Your task to perform on an android device: check data usage Image 0: 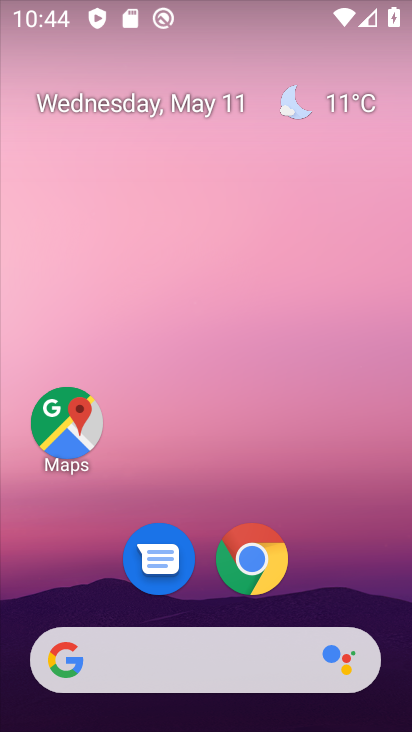
Step 0: drag from (211, 638) to (276, 188)
Your task to perform on an android device: check data usage Image 1: 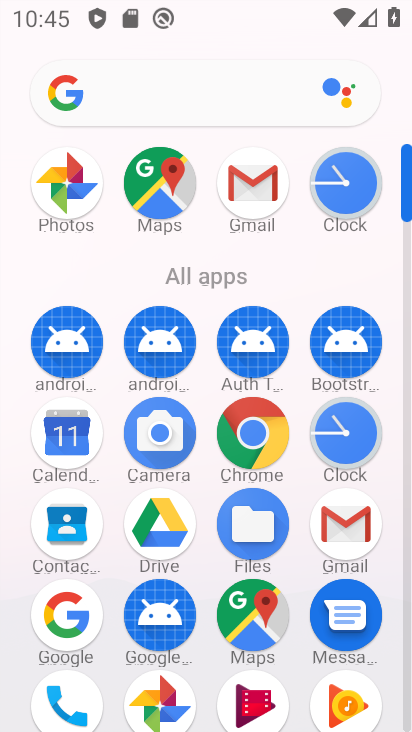
Step 1: drag from (207, 633) to (111, 23)
Your task to perform on an android device: check data usage Image 2: 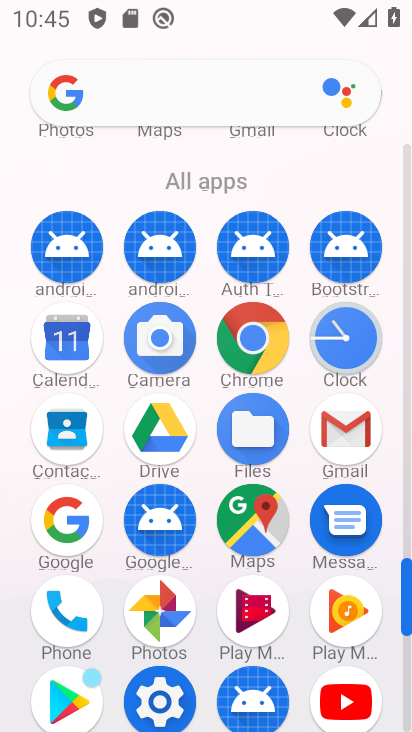
Step 2: click (167, 686)
Your task to perform on an android device: check data usage Image 3: 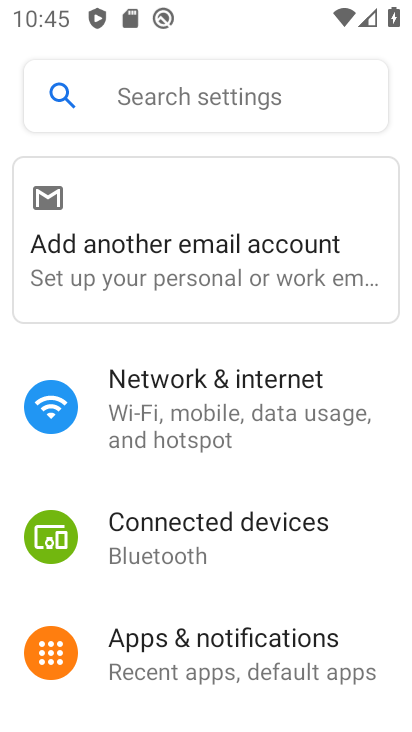
Step 3: drag from (199, 657) to (127, 104)
Your task to perform on an android device: check data usage Image 4: 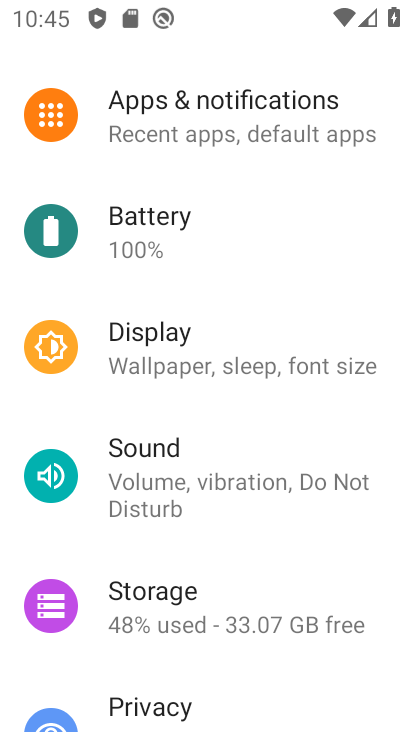
Step 4: drag from (168, 147) to (151, 600)
Your task to perform on an android device: check data usage Image 5: 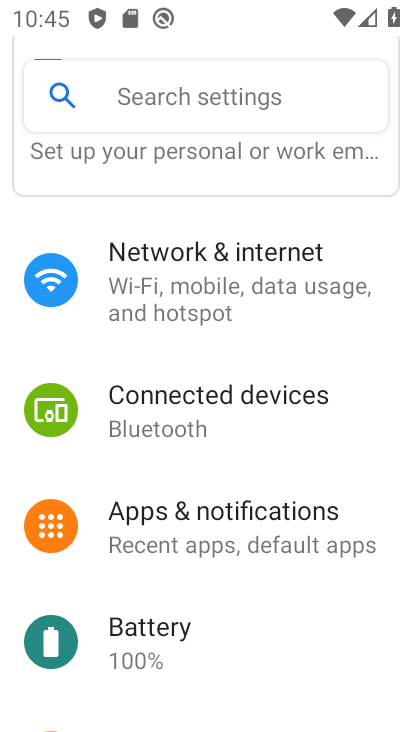
Step 5: click (164, 289)
Your task to perform on an android device: check data usage Image 6: 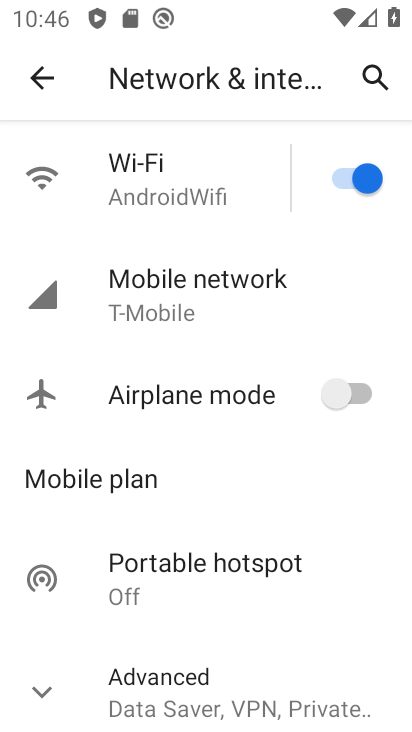
Step 6: click (180, 300)
Your task to perform on an android device: check data usage Image 7: 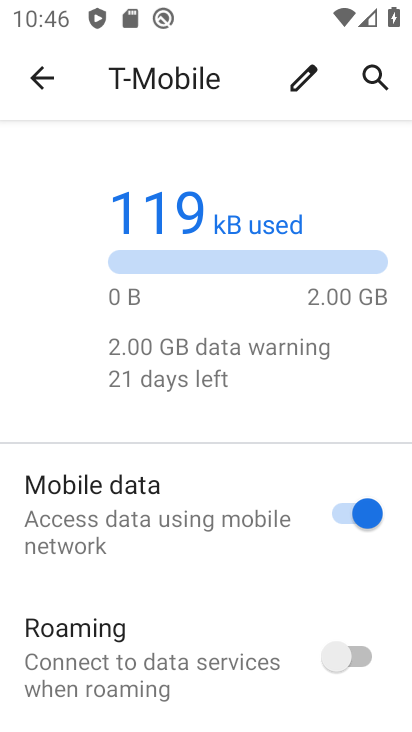
Step 7: task complete